Your task to perform on an android device: Go to Wikipedia Image 0: 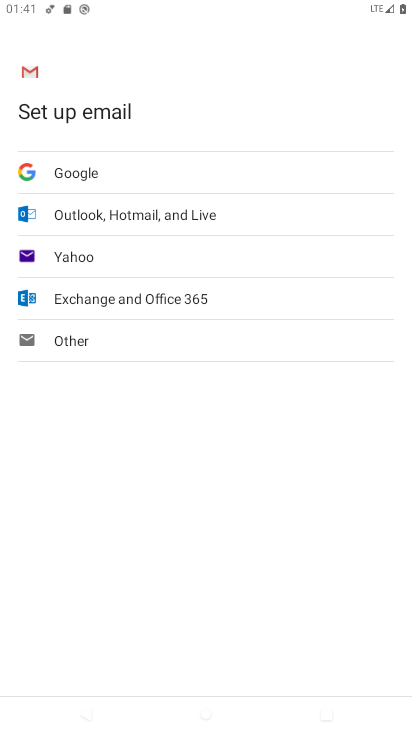
Step 0: press home button
Your task to perform on an android device: Go to Wikipedia Image 1: 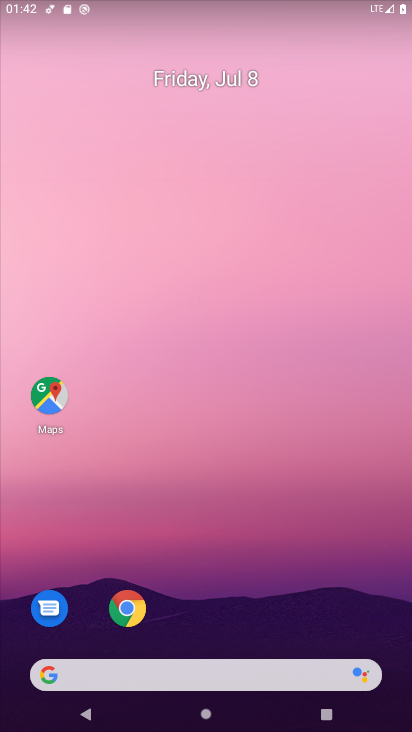
Step 1: drag from (201, 668) to (317, 142)
Your task to perform on an android device: Go to Wikipedia Image 2: 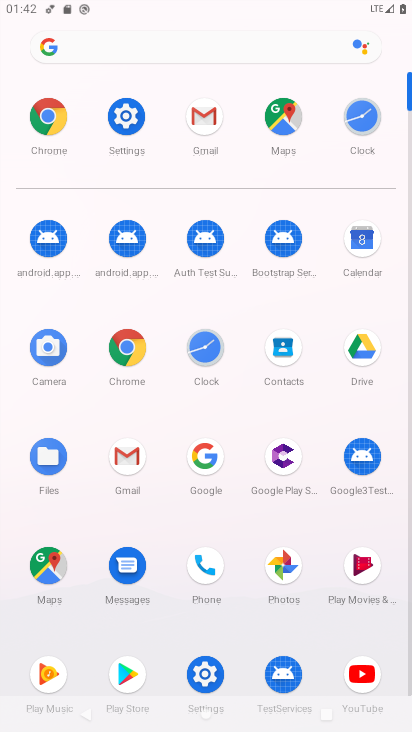
Step 2: click (59, 118)
Your task to perform on an android device: Go to Wikipedia Image 3: 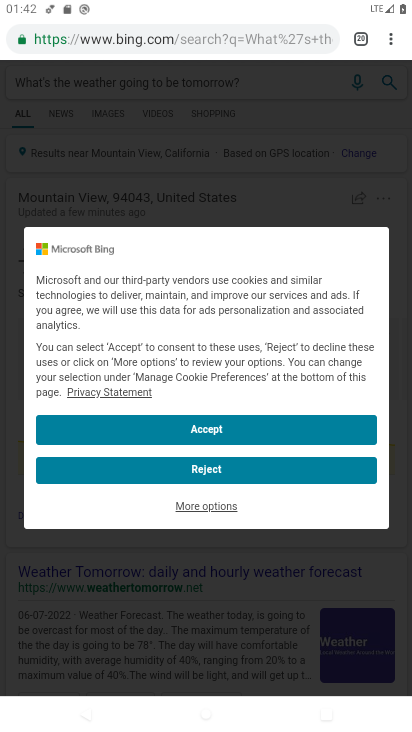
Step 3: click (389, 41)
Your task to perform on an android device: Go to Wikipedia Image 4: 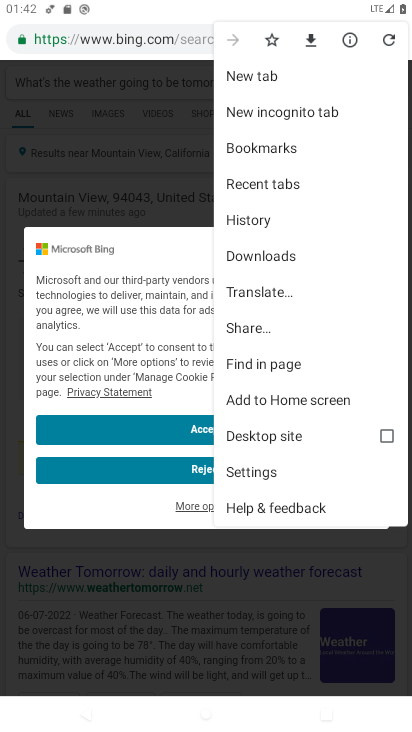
Step 4: click (301, 70)
Your task to perform on an android device: Go to Wikipedia Image 5: 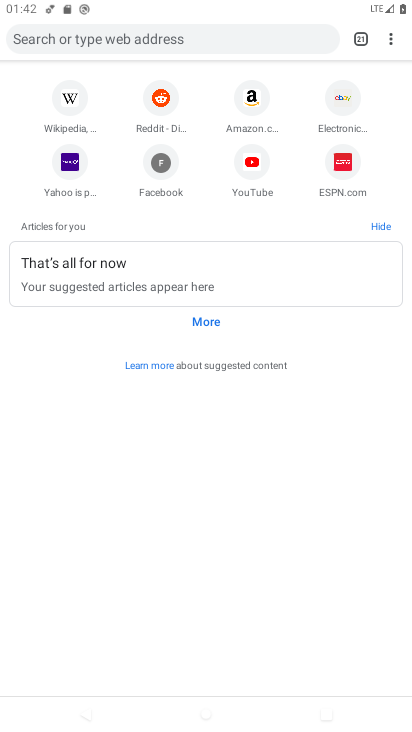
Step 5: click (67, 101)
Your task to perform on an android device: Go to Wikipedia Image 6: 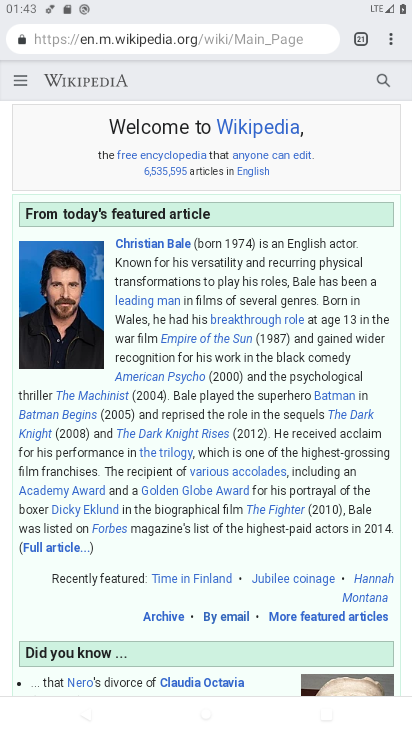
Step 6: task complete